Your task to perform on an android device: check battery use Image 0: 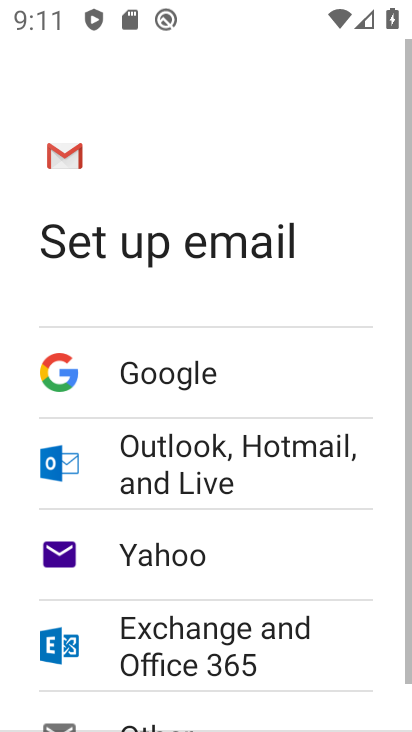
Step 0: press home button
Your task to perform on an android device: check battery use Image 1: 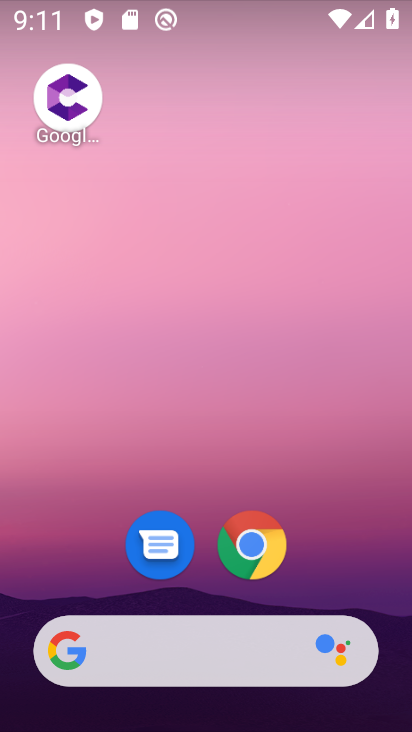
Step 1: drag from (204, 602) to (140, 67)
Your task to perform on an android device: check battery use Image 2: 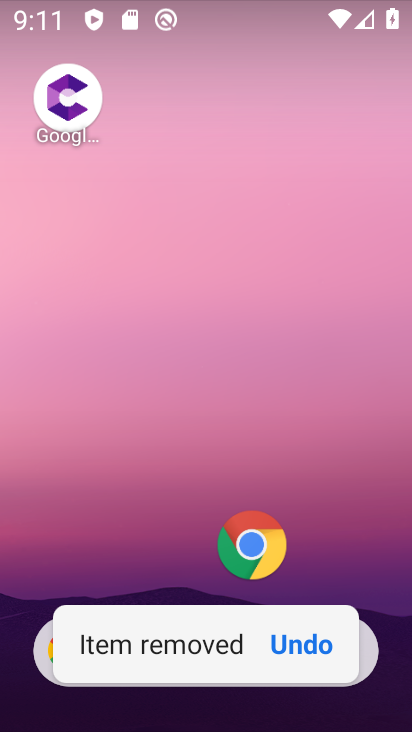
Step 2: drag from (210, 589) to (152, 82)
Your task to perform on an android device: check battery use Image 3: 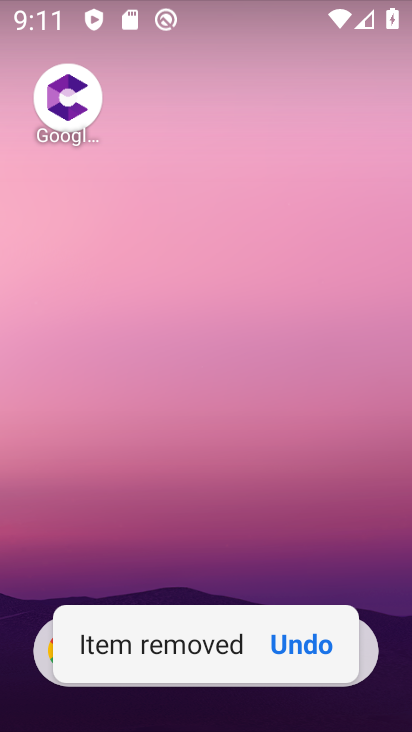
Step 3: drag from (197, 581) to (202, 150)
Your task to perform on an android device: check battery use Image 4: 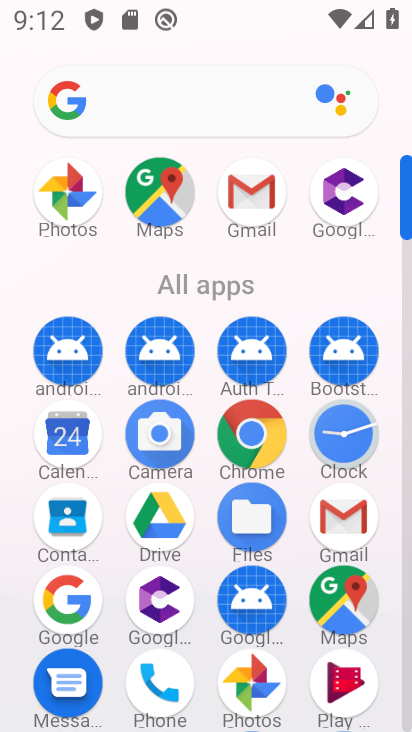
Step 4: drag from (198, 563) to (175, 192)
Your task to perform on an android device: check battery use Image 5: 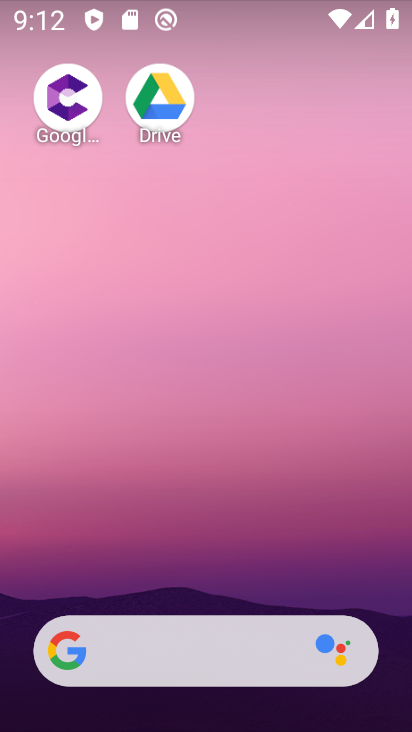
Step 5: drag from (211, 594) to (198, 8)
Your task to perform on an android device: check battery use Image 6: 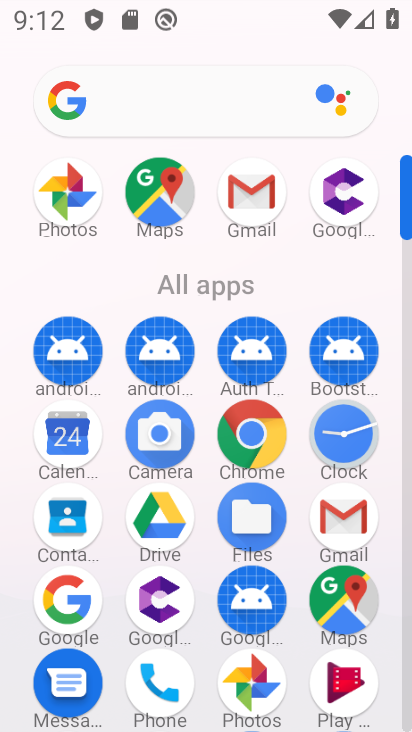
Step 6: drag from (203, 644) to (182, 281)
Your task to perform on an android device: check battery use Image 7: 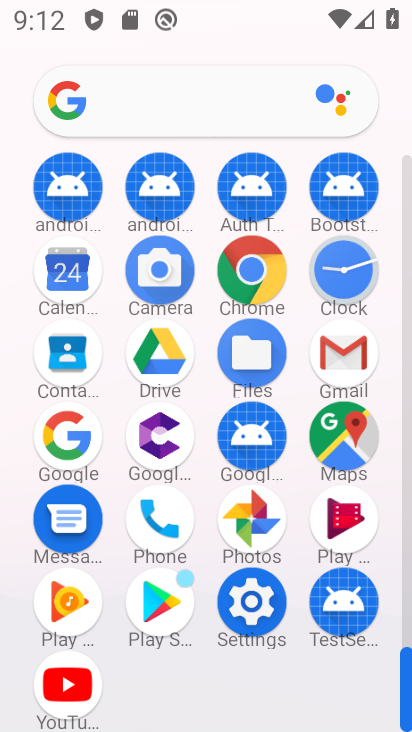
Step 7: click (261, 625)
Your task to perform on an android device: check battery use Image 8: 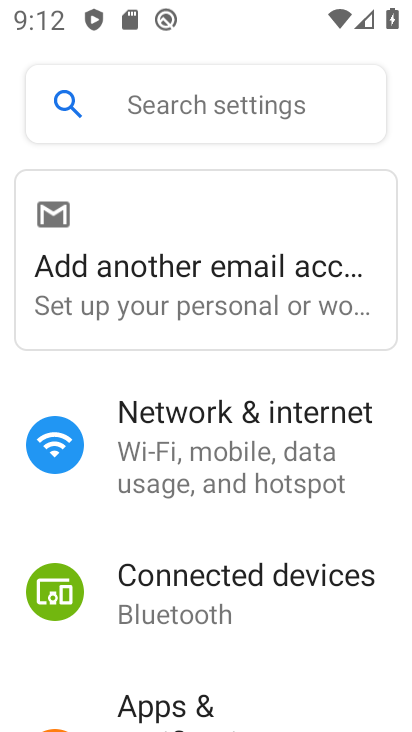
Step 8: drag from (261, 625) to (173, 177)
Your task to perform on an android device: check battery use Image 9: 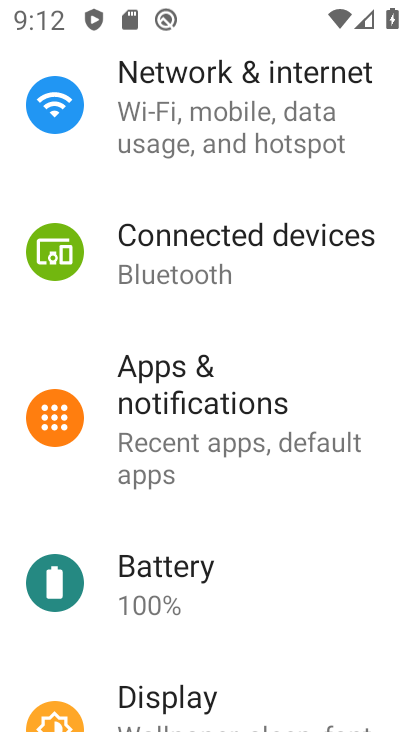
Step 9: click (182, 566)
Your task to perform on an android device: check battery use Image 10: 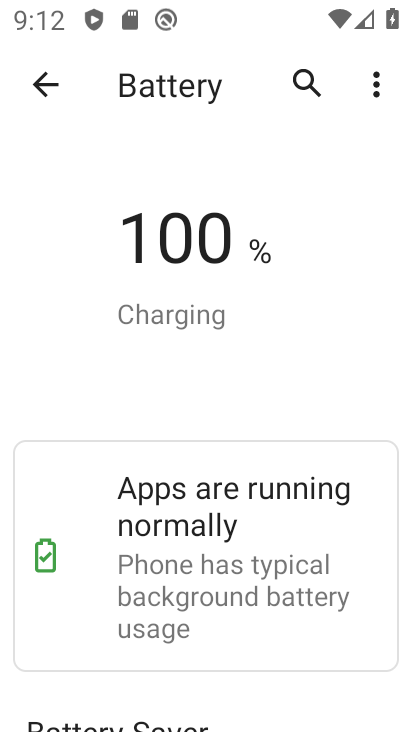
Step 10: click (368, 97)
Your task to perform on an android device: check battery use Image 11: 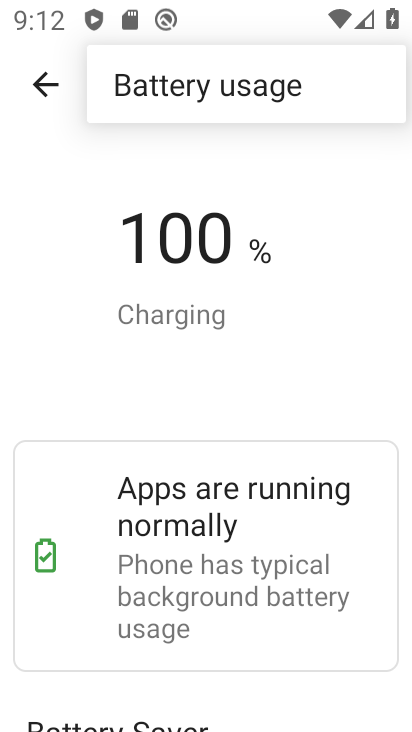
Step 11: click (263, 97)
Your task to perform on an android device: check battery use Image 12: 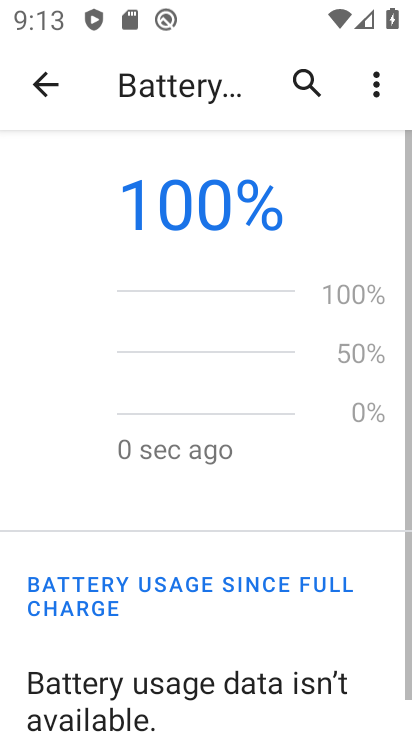
Step 12: task complete